Your task to perform on an android device: open app "The Home Depot" (install if not already installed) Image 0: 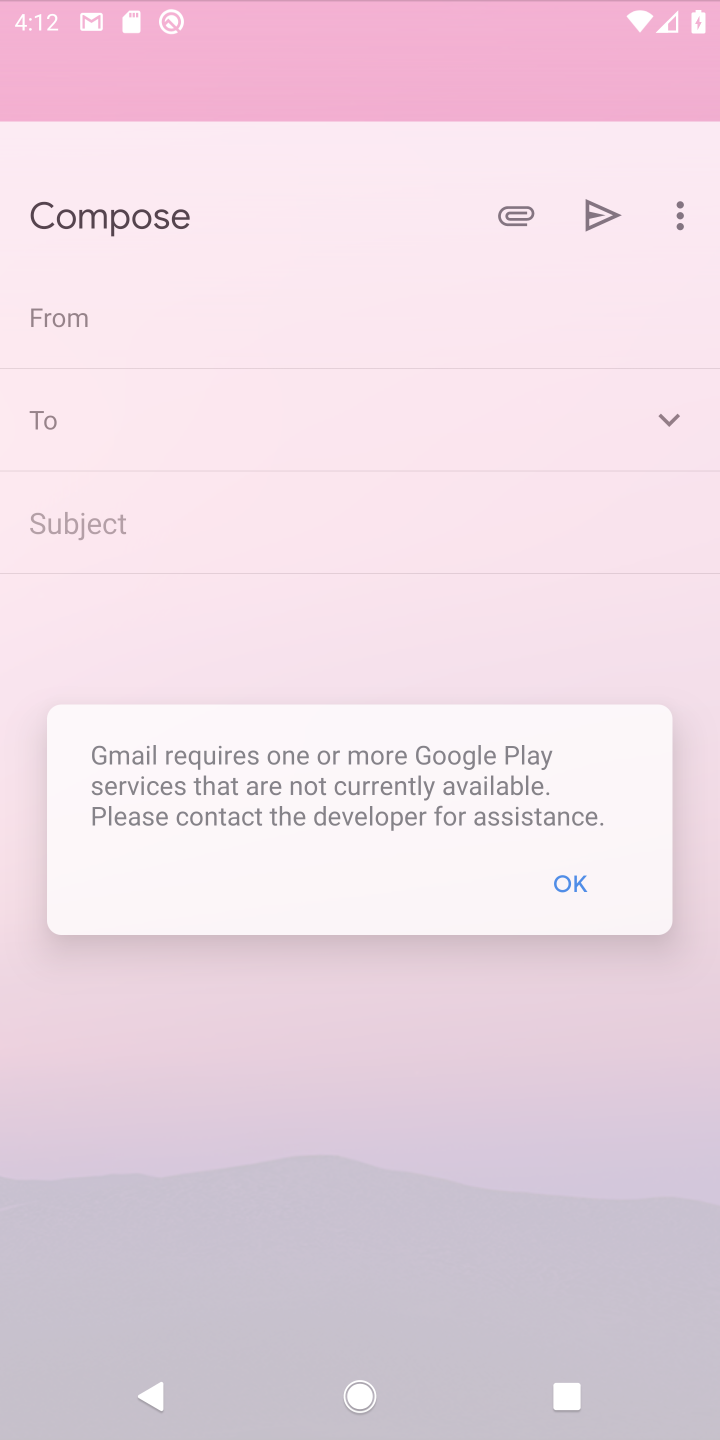
Step 0: click (227, 86)
Your task to perform on an android device: open app "The Home Depot" (install if not already installed) Image 1: 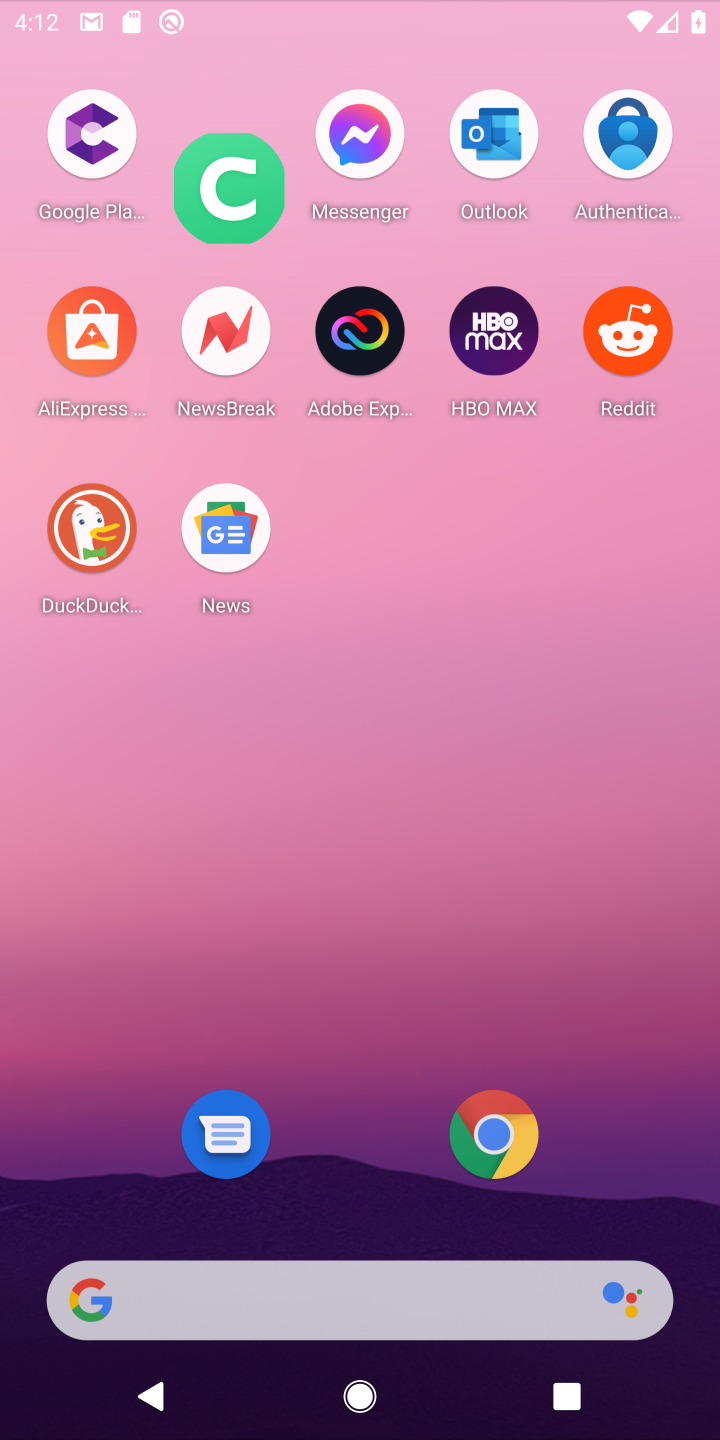
Step 1: drag from (343, 698) to (344, 146)
Your task to perform on an android device: open app "The Home Depot" (install if not already installed) Image 2: 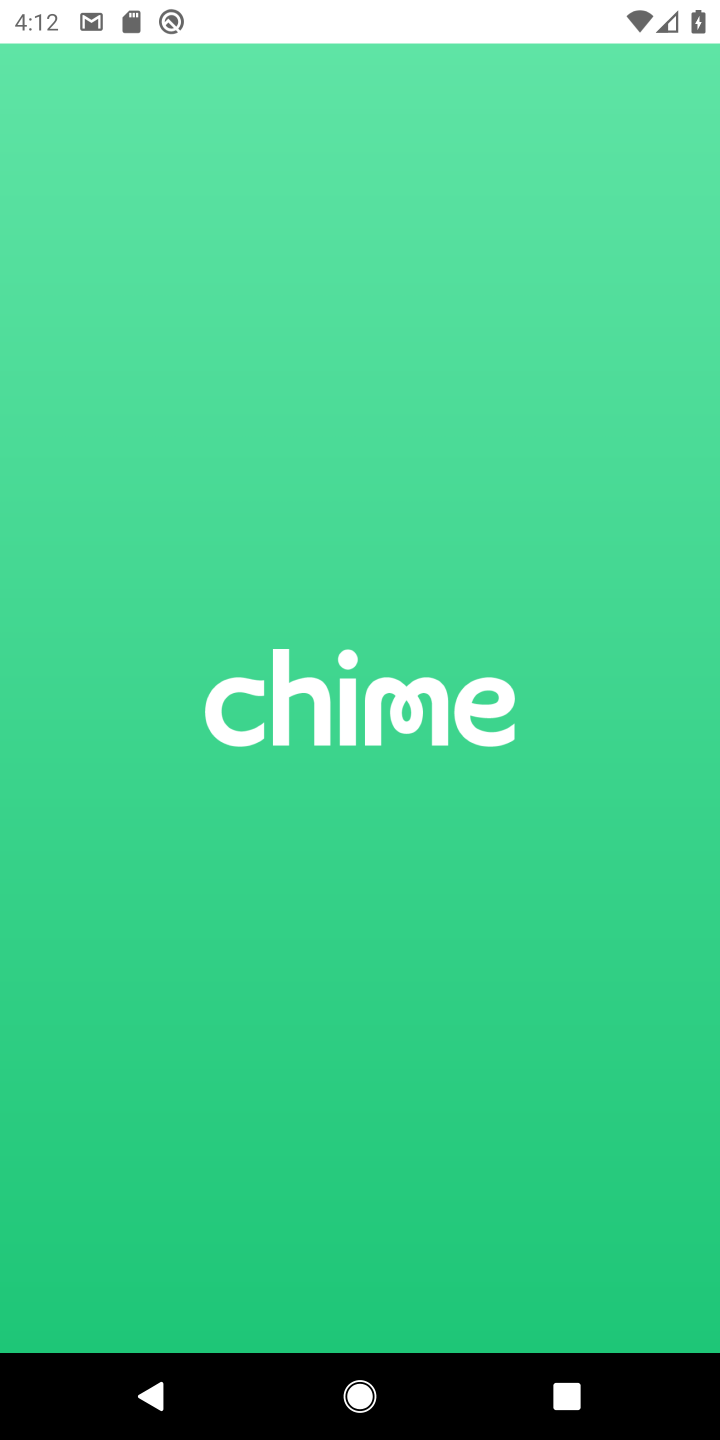
Step 2: press home button
Your task to perform on an android device: open app "The Home Depot" (install if not already installed) Image 3: 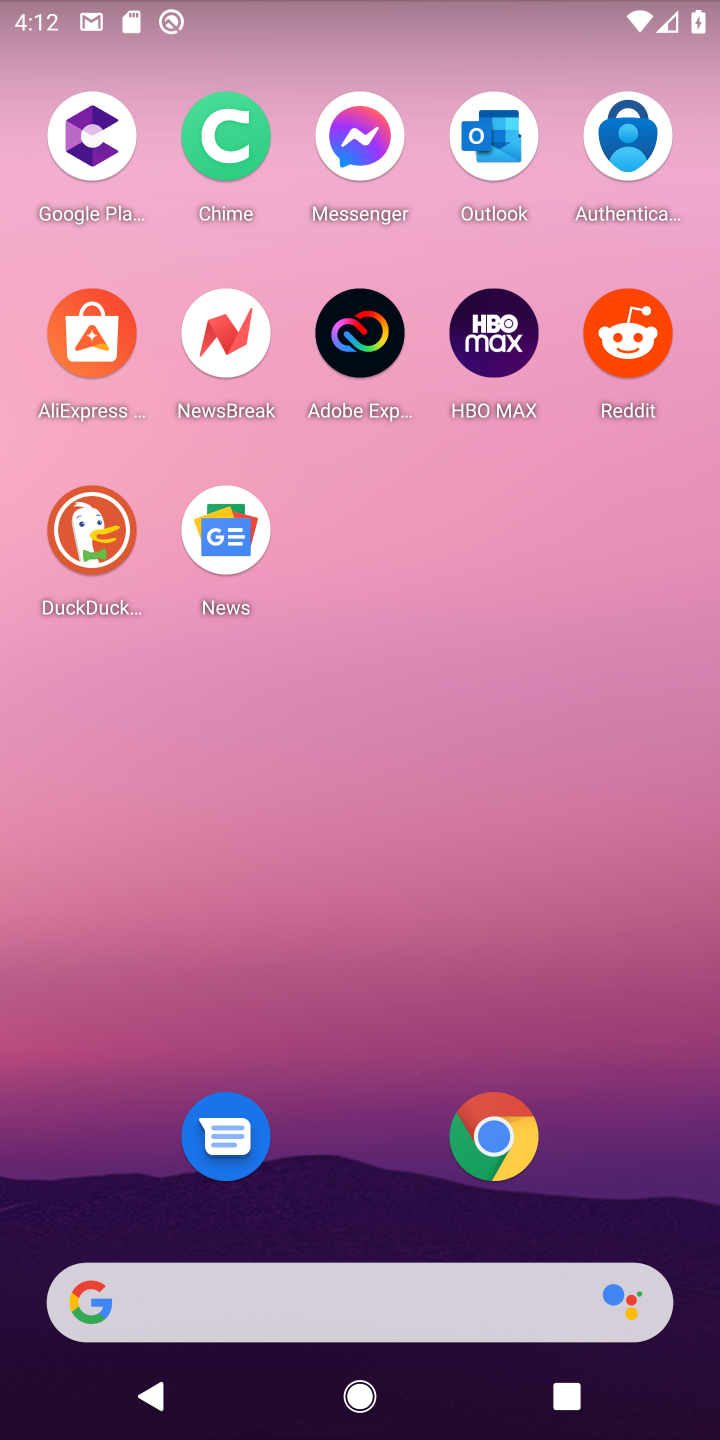
Step 3: drag from (338, 1009) to (519, 32)
Your task to perform on an android device: open app "The Home Depot" (install if not already installed) Image 4: 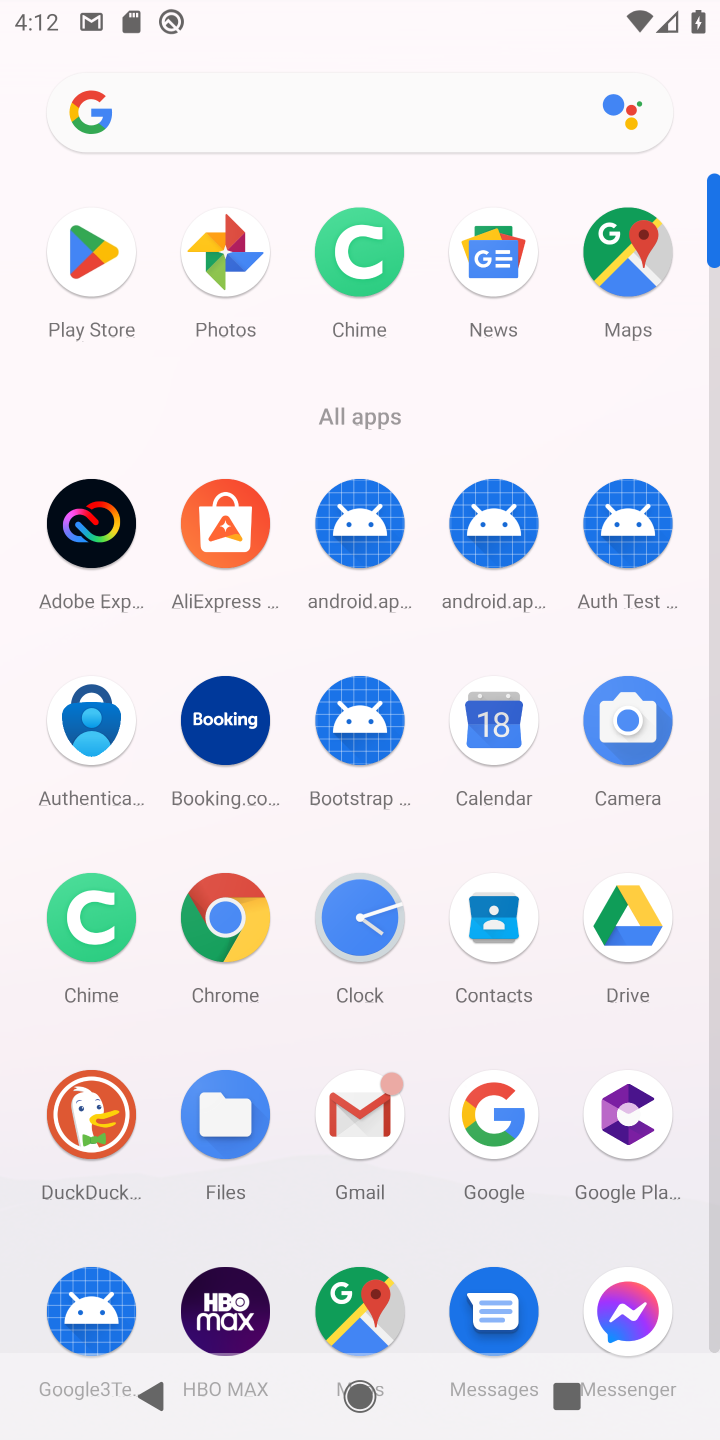
Step 4: click (77, 274)
Your task to perform on an android device: open app "The Home Depot" (install if not already installed) Image 5: 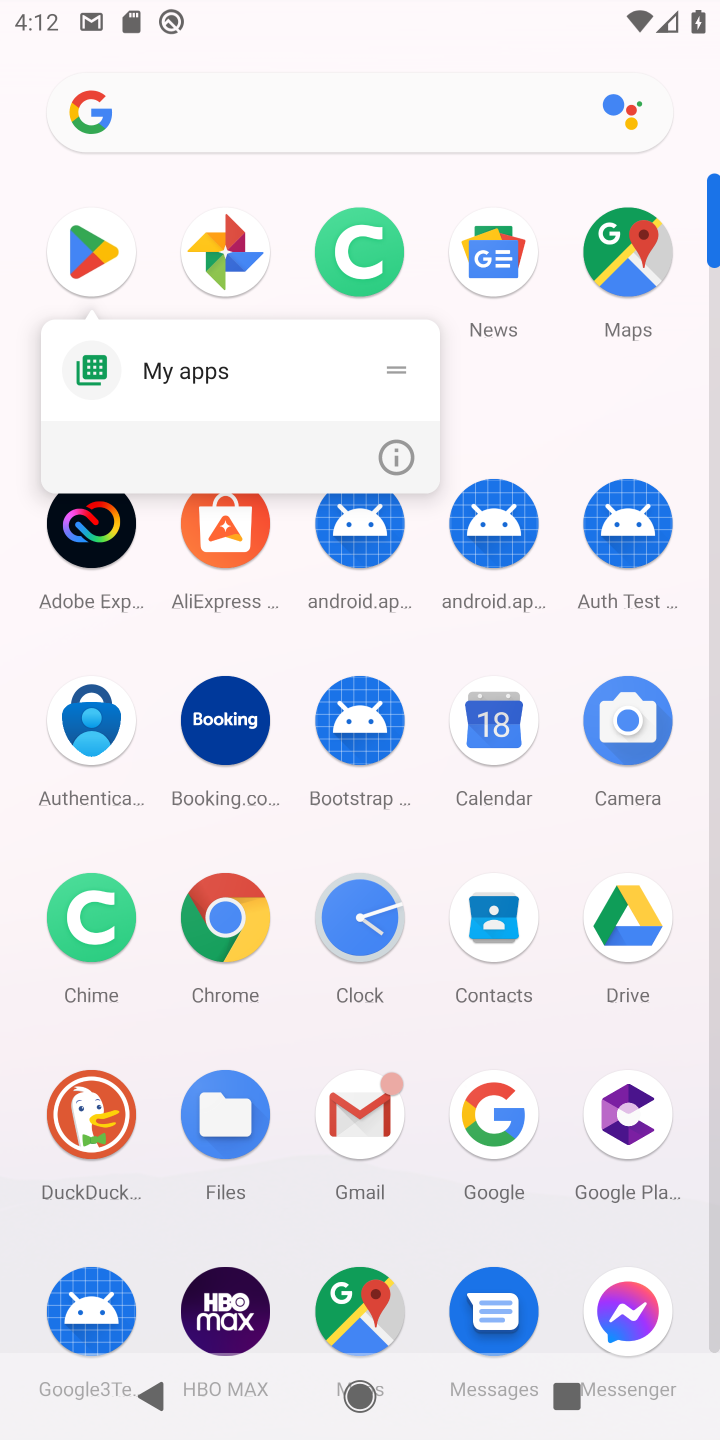
Step 5: click (81, 282)
Your task to perform on an android device: open app "The Home Depot" (install if not already installed) Image 6: 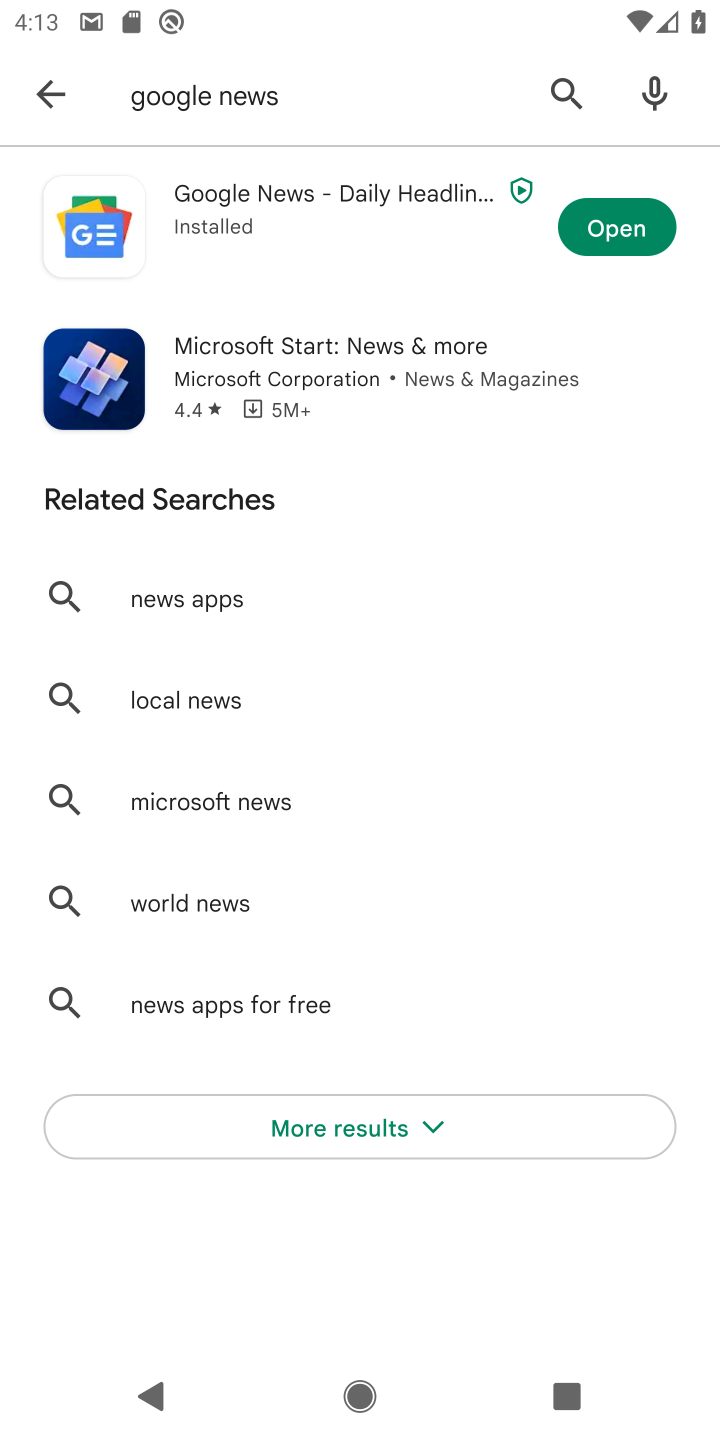
Step 6: click (259, 78)
Your task to perform on an android device: open app "The Home Depot" (install if not already installed) Image 7: 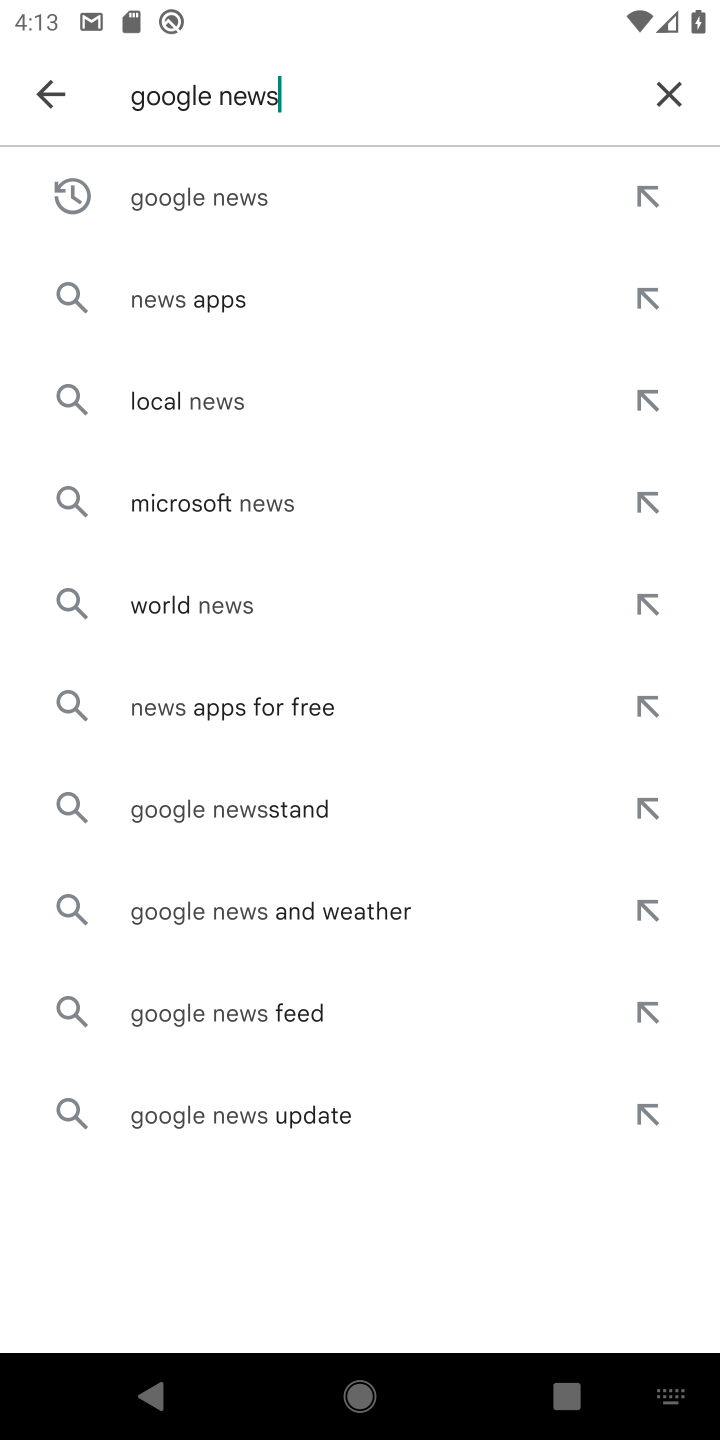
Step 7: click (670, 96)
Your task to perform on an android device: open app "The Home Depot" (install if not already installed) Image 8: 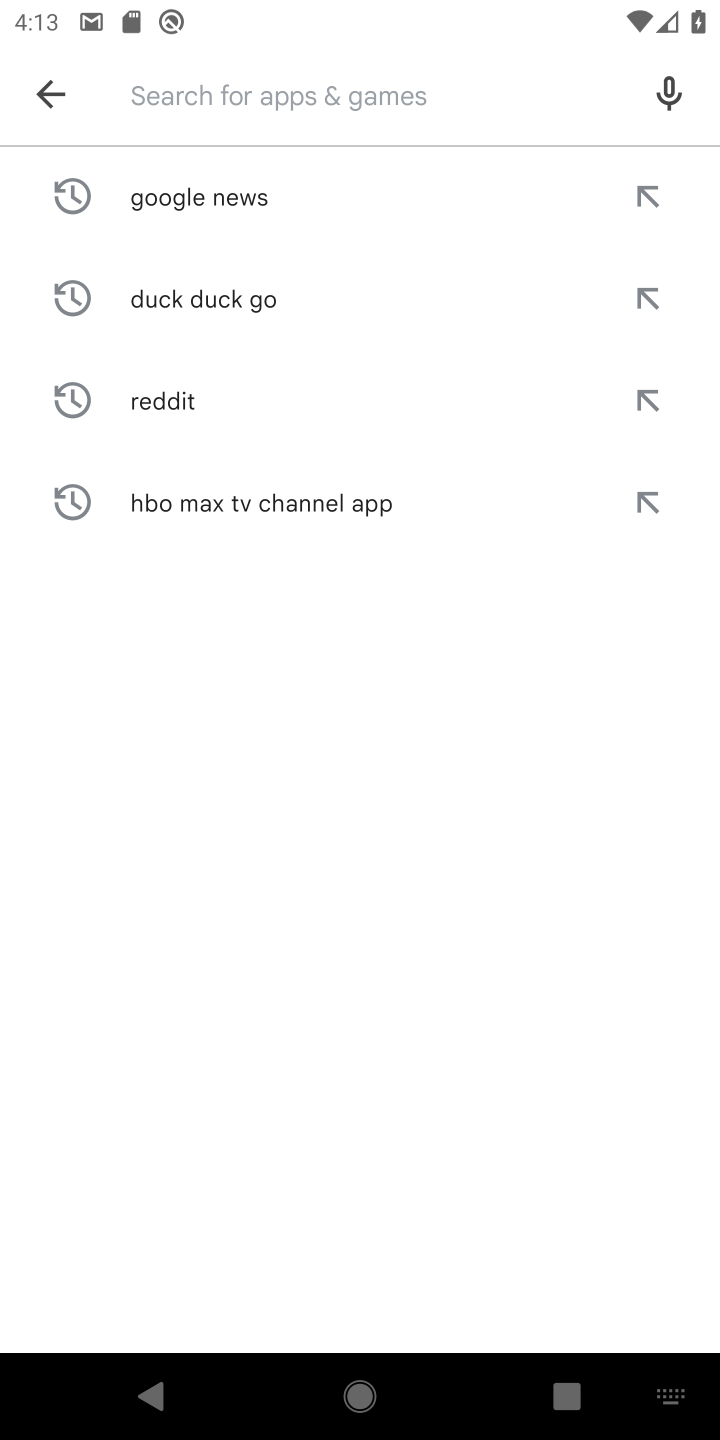
Step 8: type "the home depot"
Your task to perform on an android device: open app "The Home Depot" (install if not already installed) Image 9: 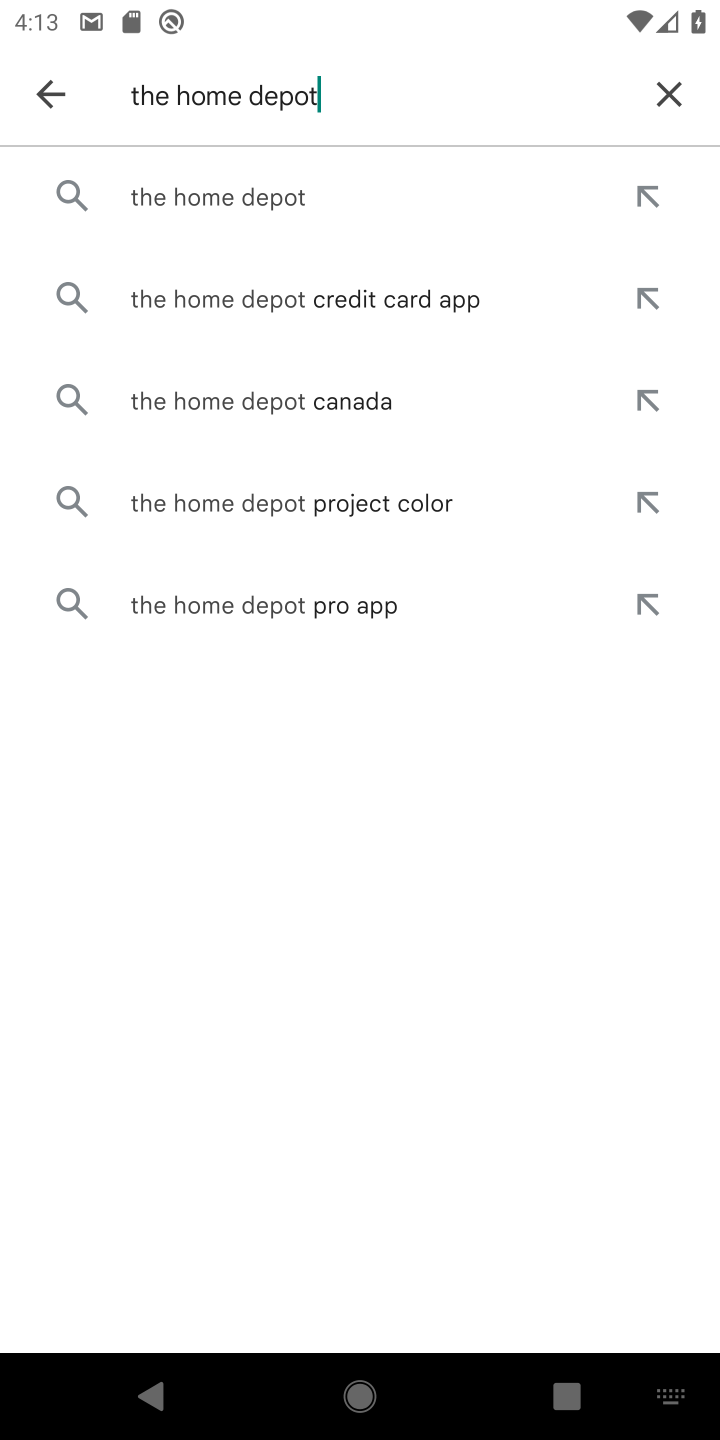
Step 9: click (301, 189)
Your task to perform on an android device: open app "The Home Depot" (install if not already installed) Image 10: 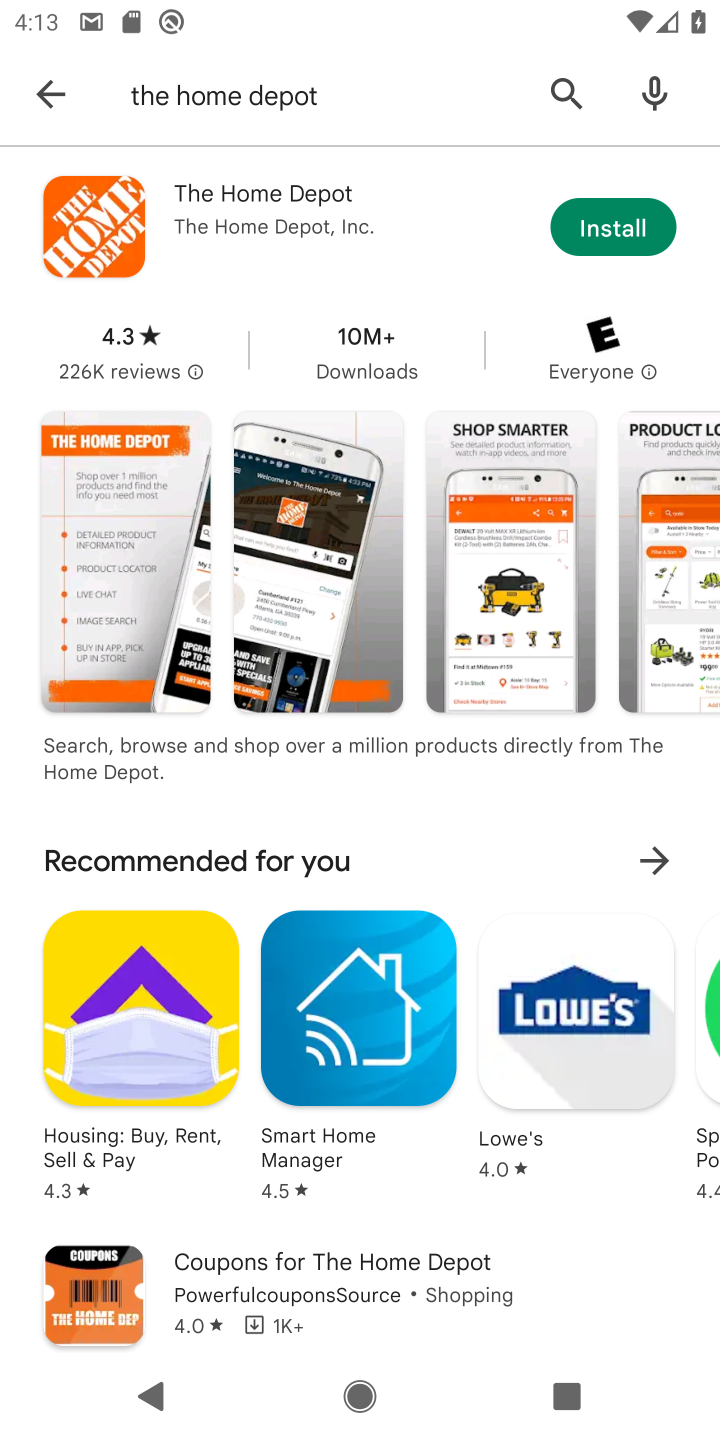
Step 10: click (596, 229)
Your task to perform on an android device: open app "The Home Depot" (install if not already installed) Image 11: 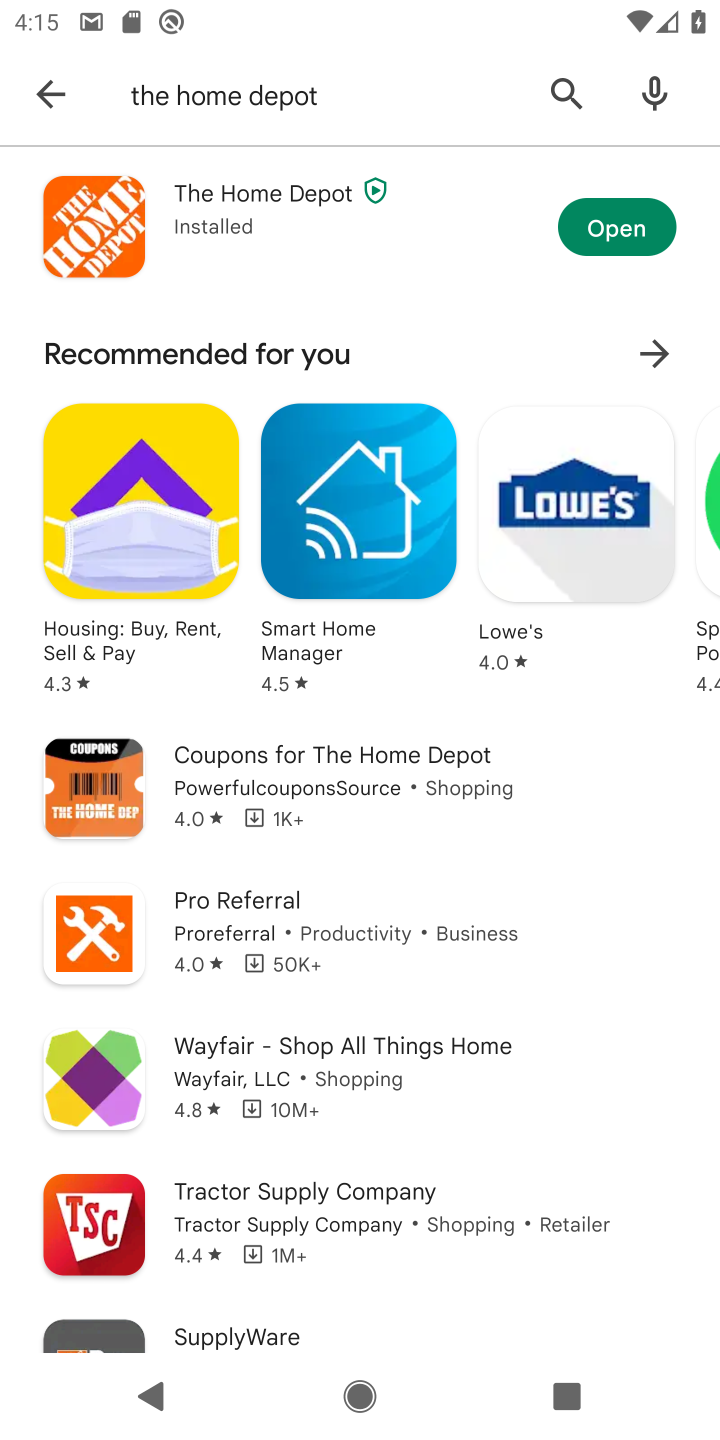
Step 11: click (620, 230)
Your task to perform on an android device: open app "The Home Depot" (install if not already installed) Image 12: 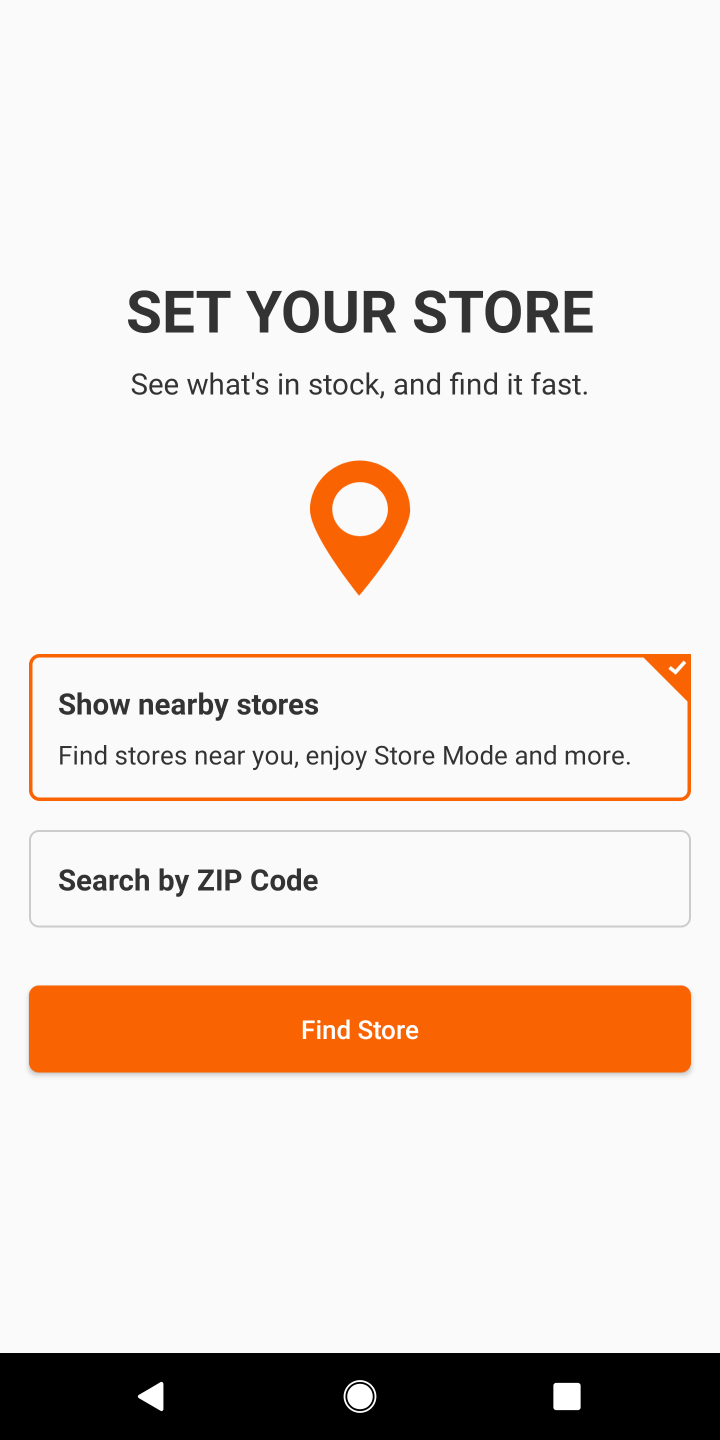
Step 12: click (447, 1036)
Your task to perform on an android device: open app "The Home Depot" (install if not already installed) Image 13: 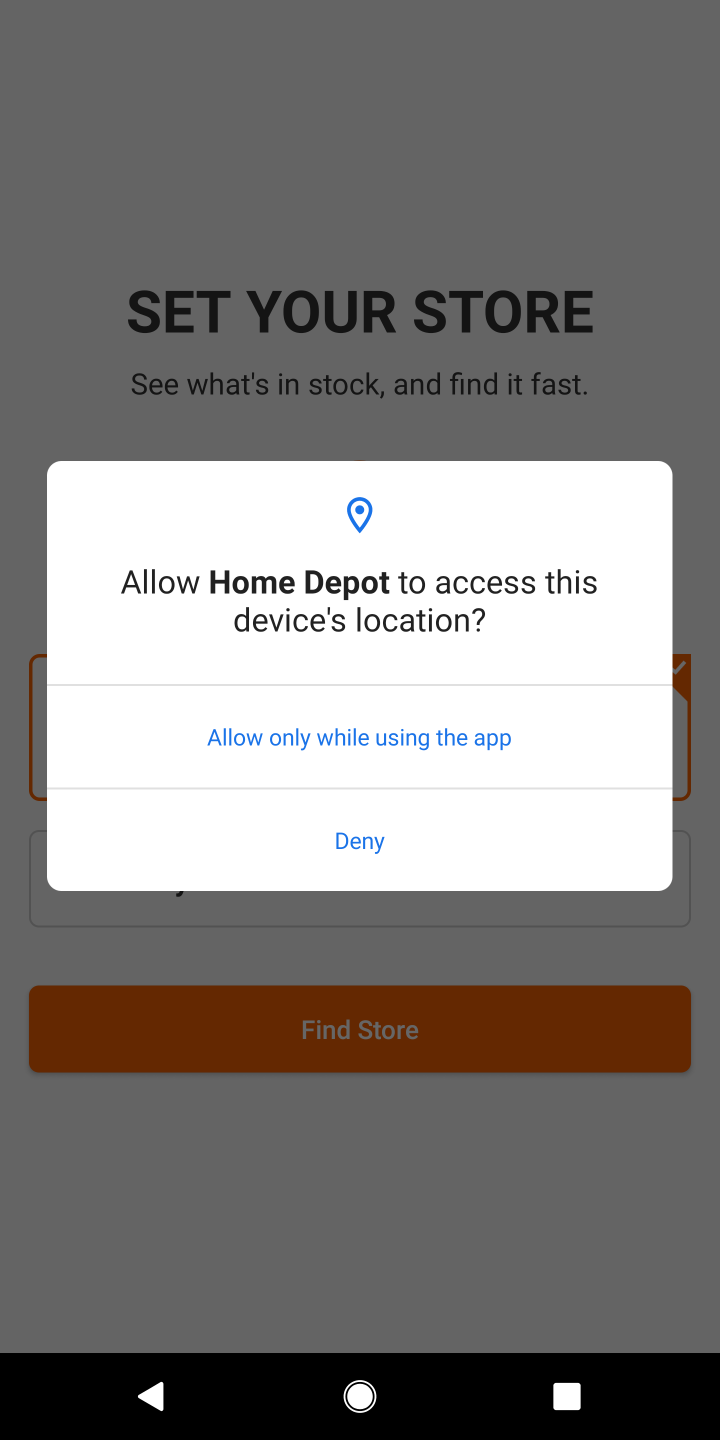
Step 13: click (428, 748)
Your task to perform on an android device: open app "The Home Depot" (install if not already installed) Image 14: 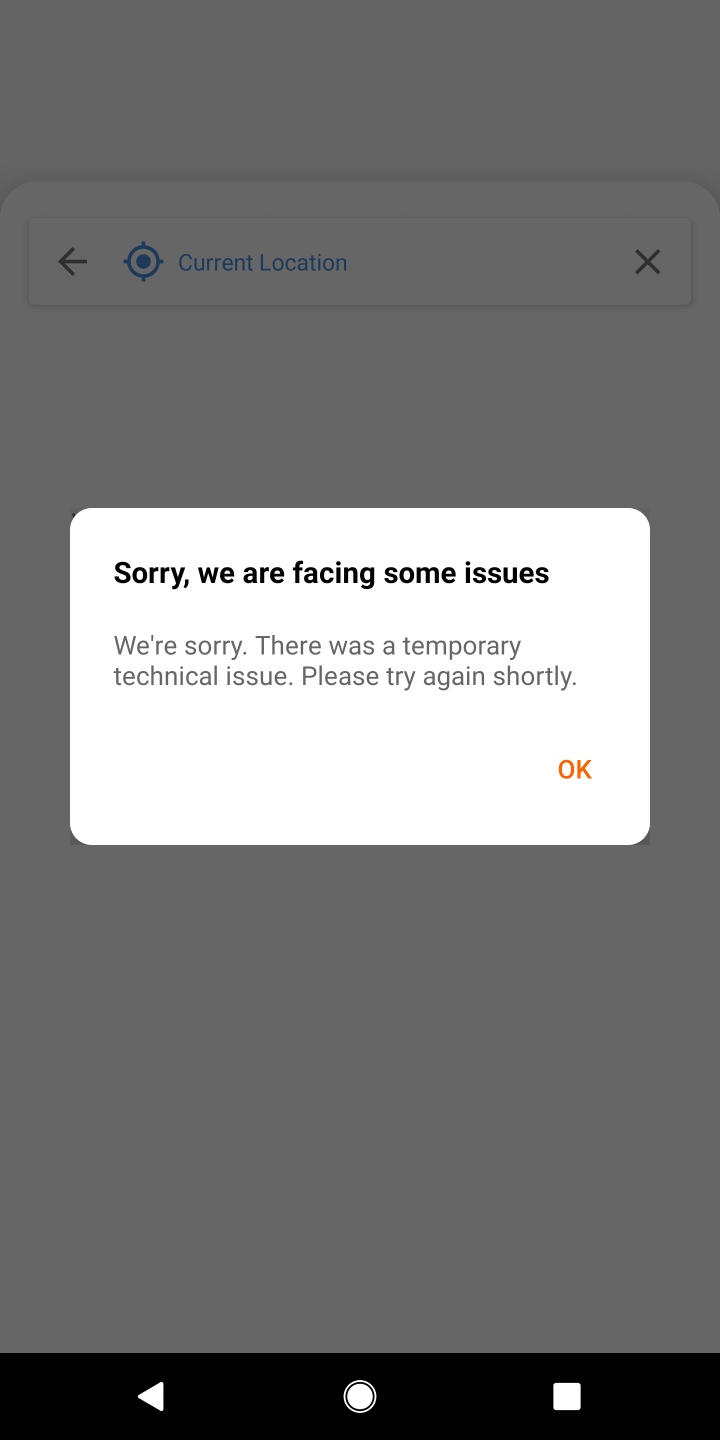
Step 14: click (556, 750)
Your task to perform on an android device: open app "The Home Depot" (install if not already installed) Image 15: 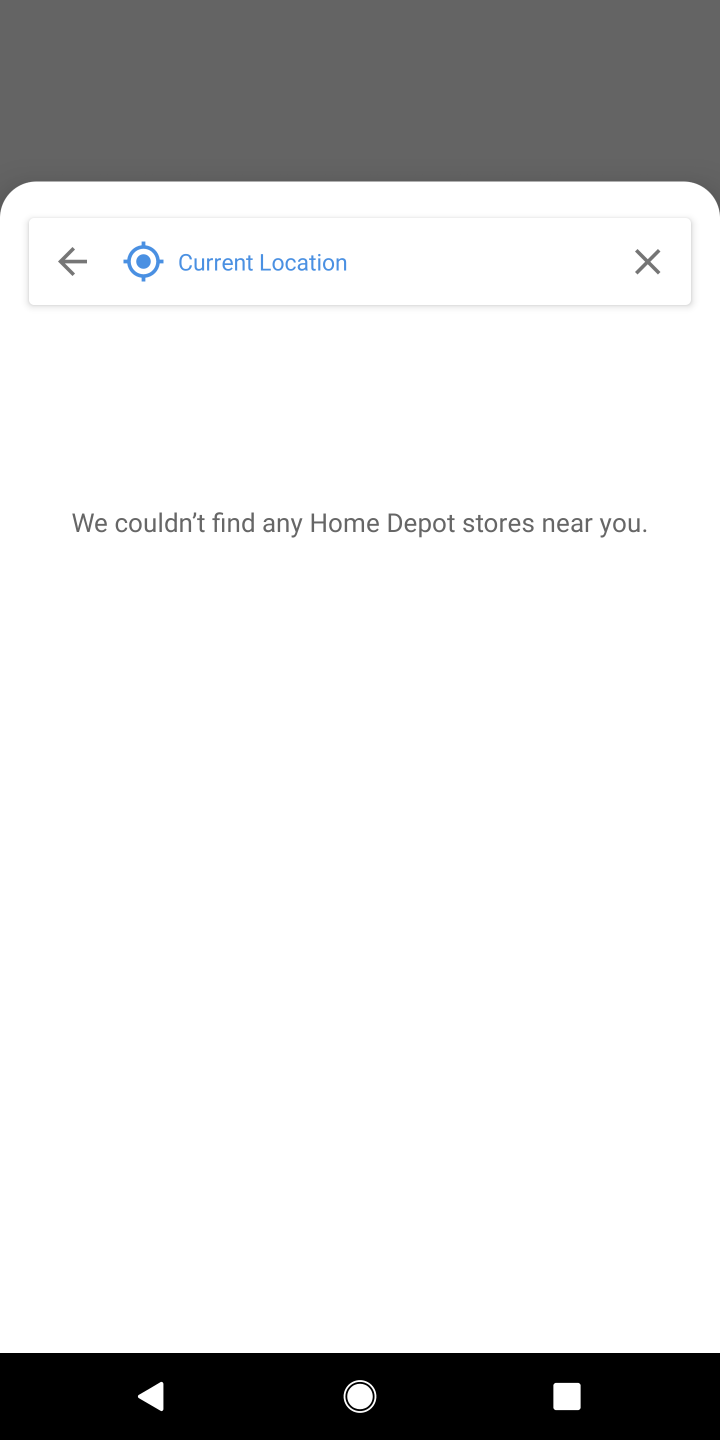
Step 15: click (61, 257)
Your task to perform on an android device: open app "The Home Depot" (install if not already installed) Image 16: 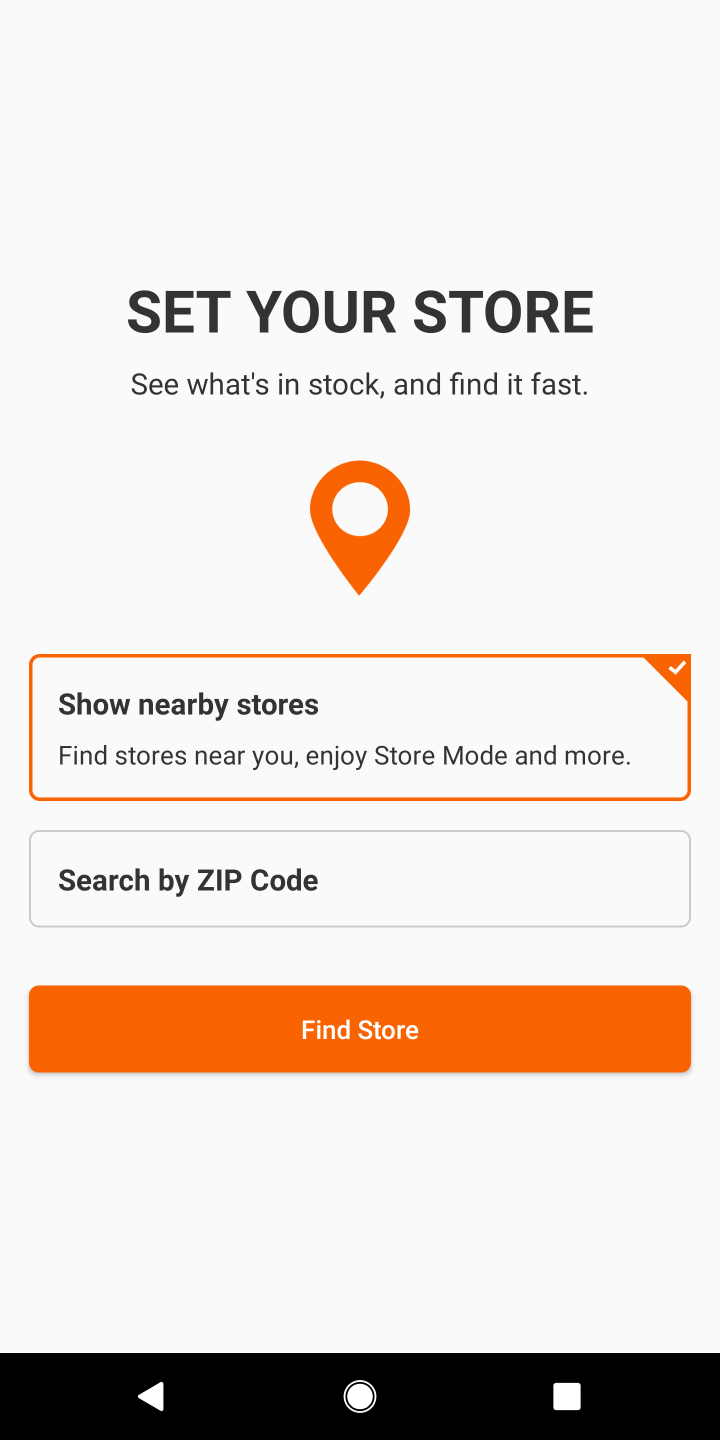
Step 16: task complete